Your task to perform on an android device: Find coffee shops on Maps Image 0: 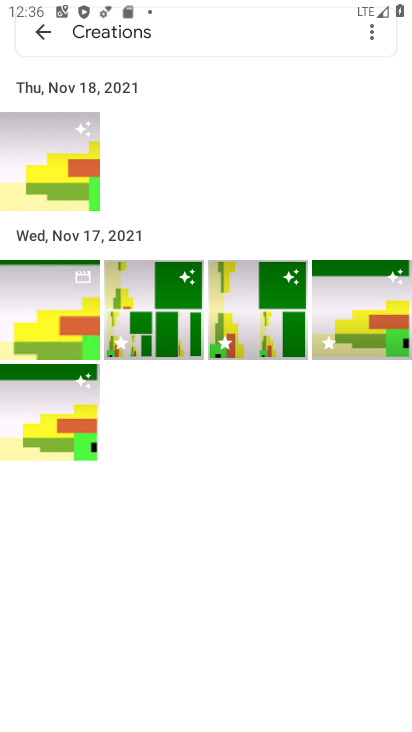
Step 0: press home button
Your task to perform on an android device: Find coffee shops on Maps Image 1: 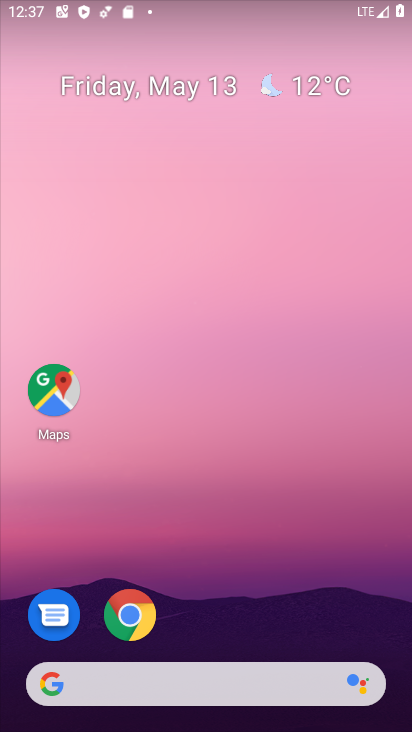
Step 1: click (57, 400)
Your task to perform on an android device: Find coffee shops on Maps Image 2: 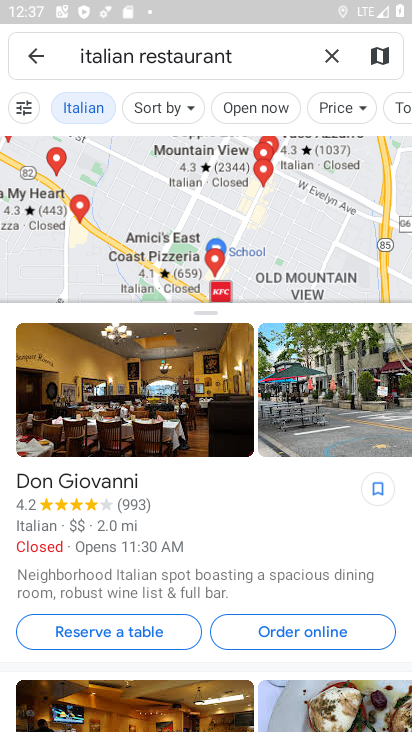
Step 2: click (329, 54)
Your task to perform on an android device: Find coffee shops on Maps Image 3: 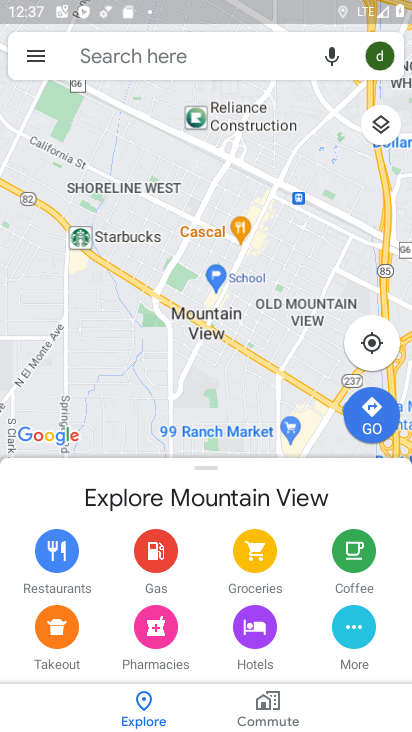
Step 3: click (212, 48)
Your task to perform on an android device: Find coffee shops on Maps Image 4: 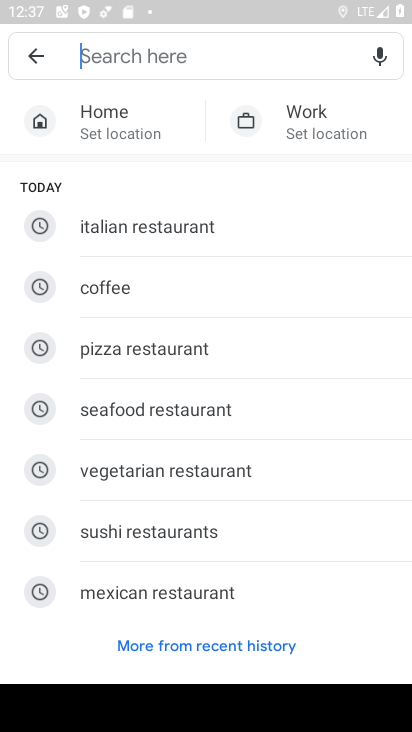
Step 4: type "coffee shops"
Your task to perform on an android device: Find coffee shops on Maps Image 5: 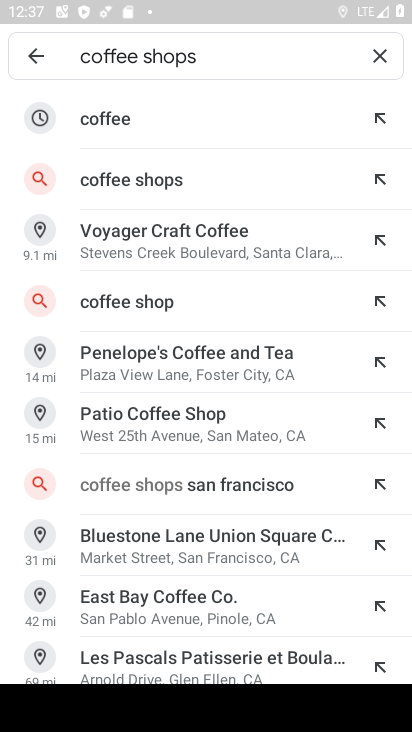
Step 5: click (211, 170)
Your task to perform on an android device: Find coffee shops on Maps Image 6: 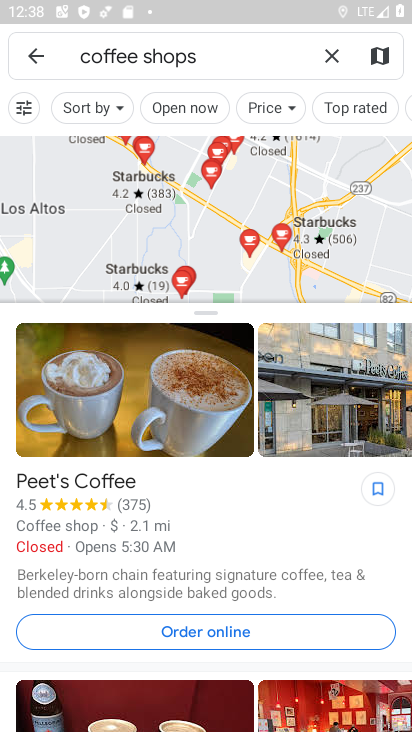
Step 6: task complete